Your task to perform on an android device: visit the assistant section in the google photos Image 0: 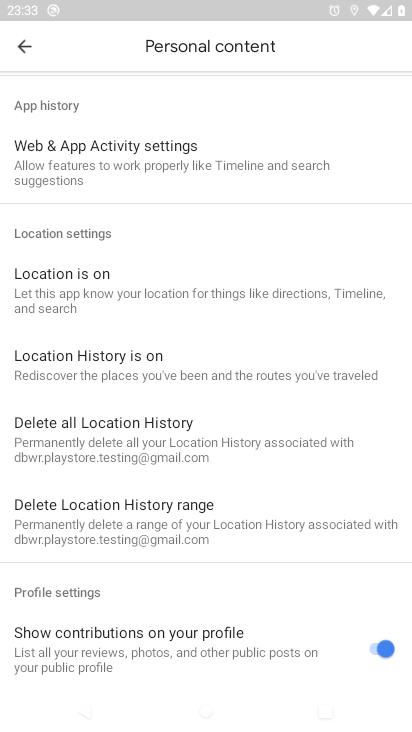
Step 0: press home button
Your task to perform on an android device: visit the assistant section in the google photos Image 1: 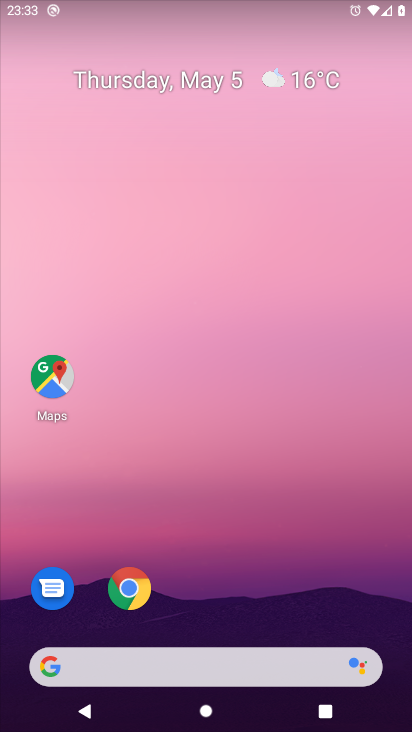
Step 1: drag from (269, 610) to (194, 121)
Your task to perform on an android device: visit the assistant section in the google photos Image 2: 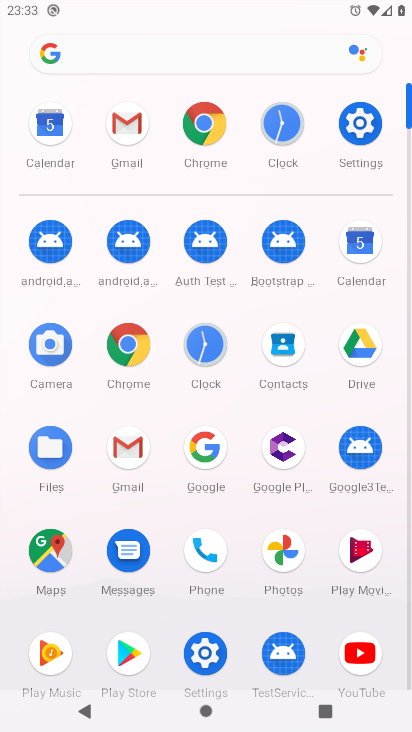
Step 2: click (288, 550)
Your task to perform on an android device: visit the assistant section in the google photos Image 3: 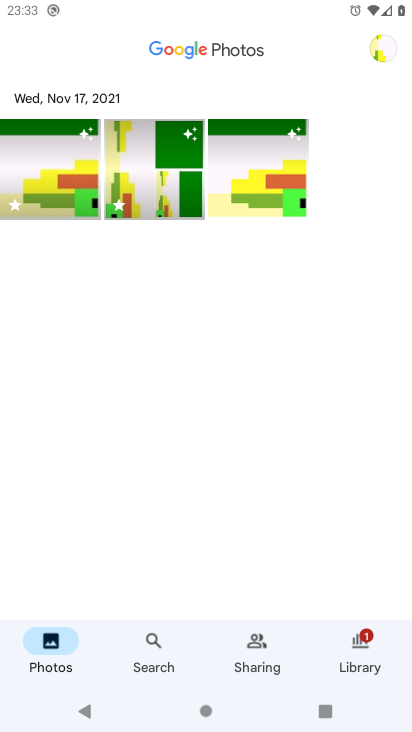
Step 3: click (351, 664)
Your task to perform on an android device: visit the assistant section in the google photos Image 4: 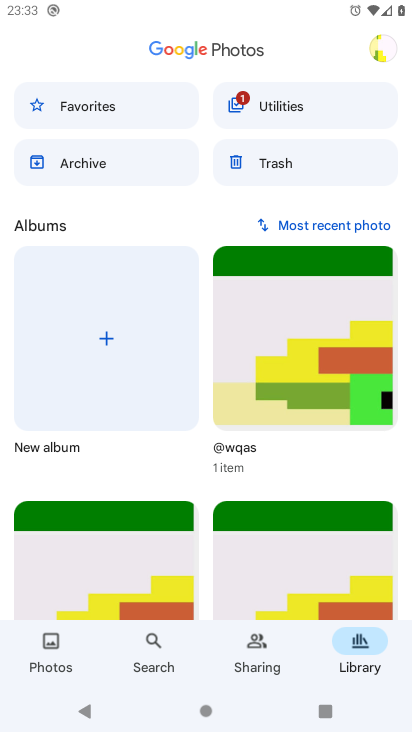
Step 4: click (270, 660)
Your task to perform on an android device: visit the assistant section in the google photos Image 5: 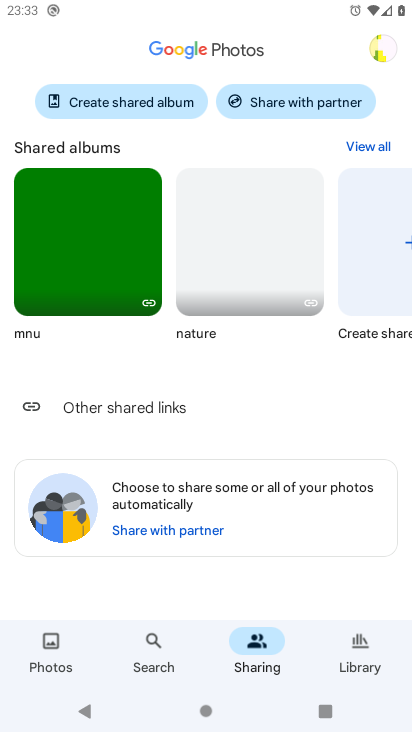
Step 5: task complete